Your task to perform on an android device: Open Reddit.com Image 0: 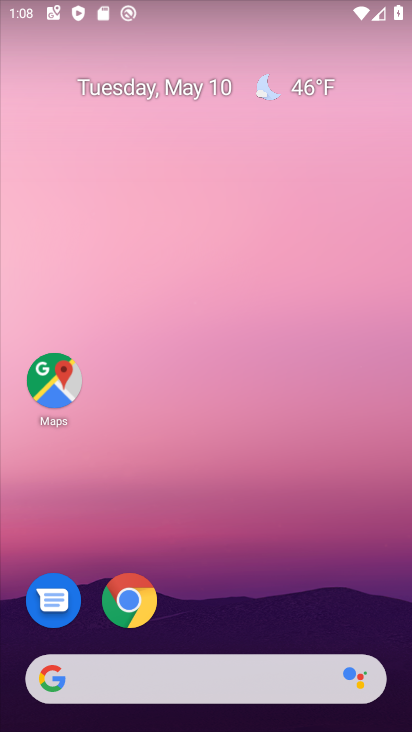
Step 0: press home button
Your task to perform on an android device: Open Reddit.com Image 1: 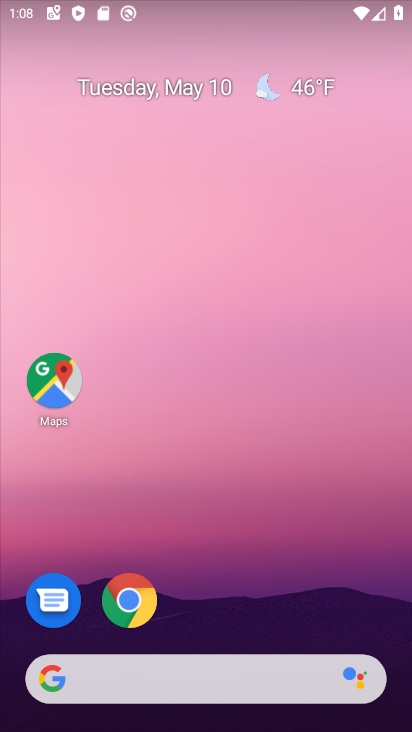
Step 1: drag from (168, 680) to (315, 19)
Your task to perform on an android device: Open Reddit.com Image 2: 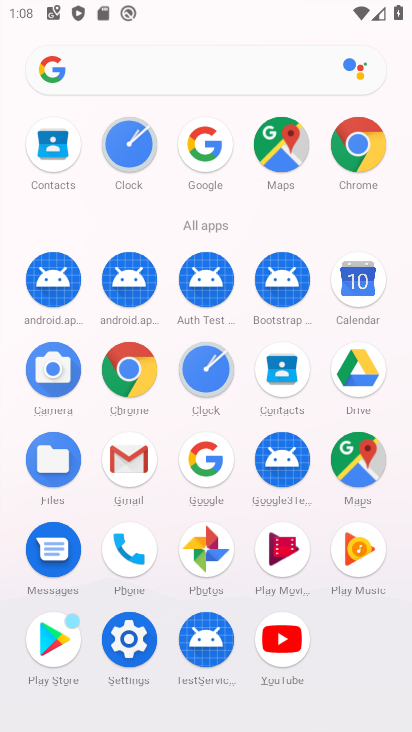
Step 2: click (353, 159)
Your task to perform on an android device: Open Reddit.com Image 3: 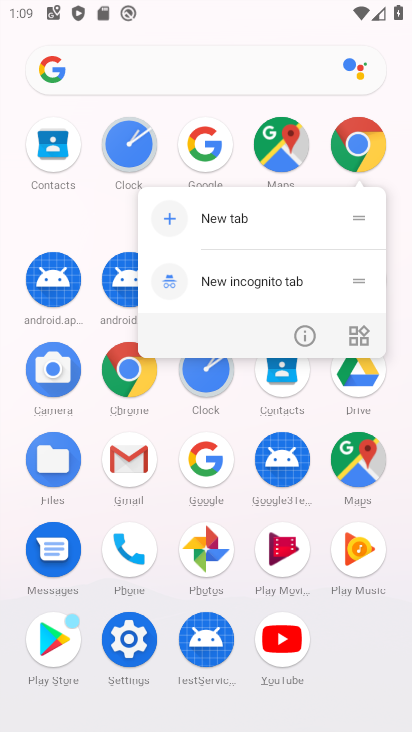
Step 3: click (359, 153)
Your task to perform on an android device: Open Reddit.com Image 4: 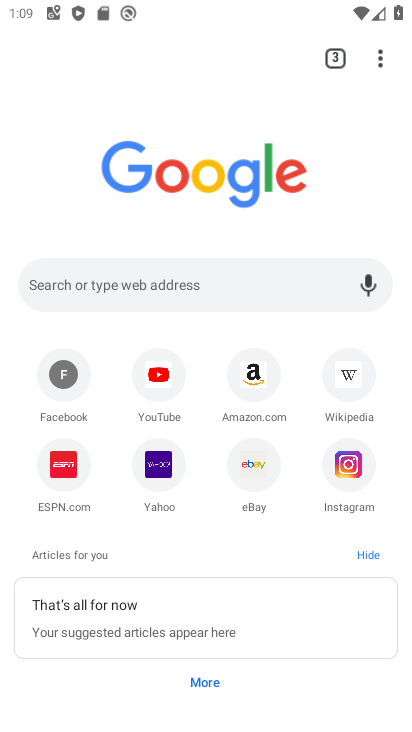
Step 4: click (119, 282)
Your task to perform on an android device: Open Reddit.com Image 5: 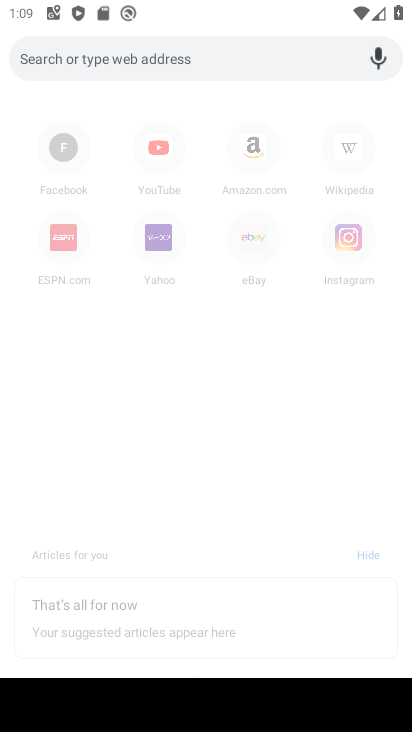
Step 5: type "reddit.com"
Your task to perform on an android device: Open Reddit.com Image 6: 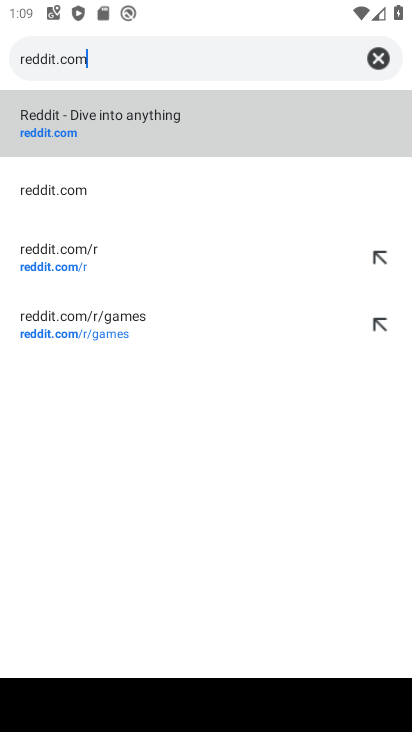
Step 6: click (91, 132)
Your task to perform on an android device: Open Reddit.com Image 7: 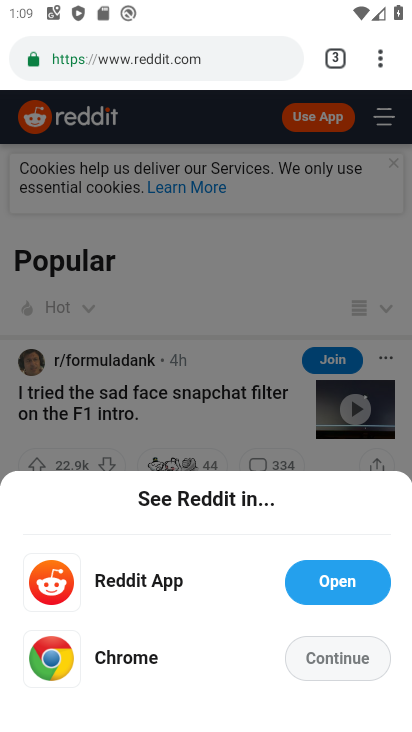
Step 7: task complete